Your task to perform on an android device: Open network settings Image 0: 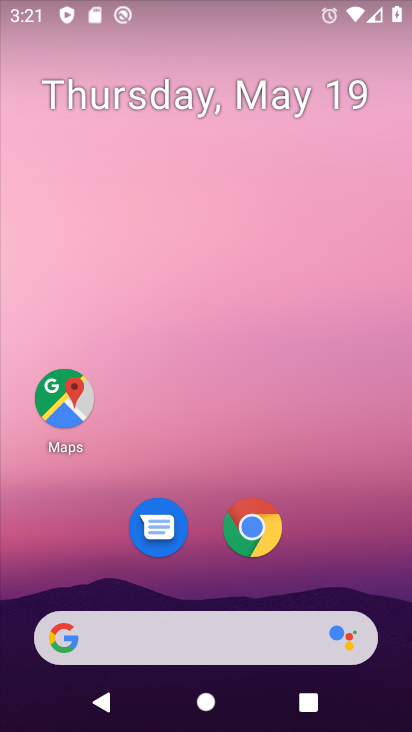
Step 0: drag from (331, 540) to (360, 177)
Your task to perform on an android device: Open network settings Image 1: 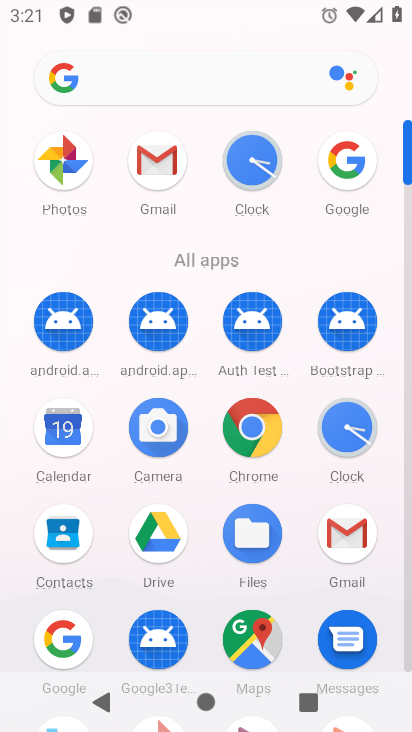
Step 1: drag from (296, 634) to (327, 296)
Your task to perform on an android device: Open network settings Image 2: 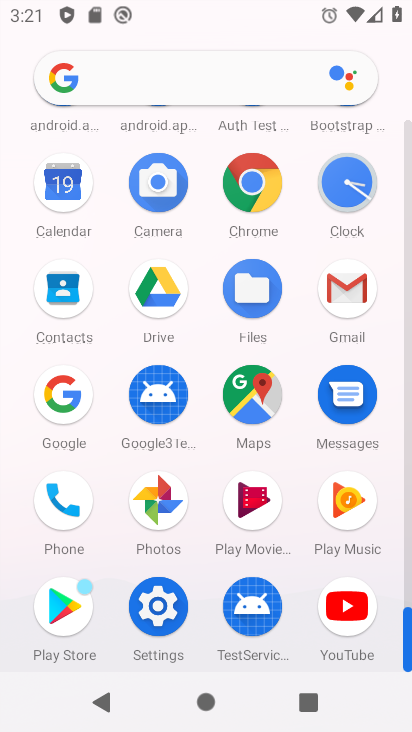
Step 2: click (159, 592)
Your task to perform on an android device: Open network settings Image 3: 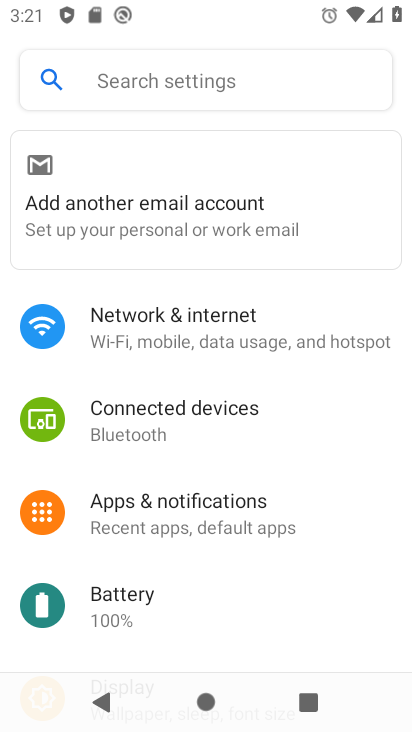
Step 3: click (238, 327)
Your task to perform on an android device: Open network settings Image 4: 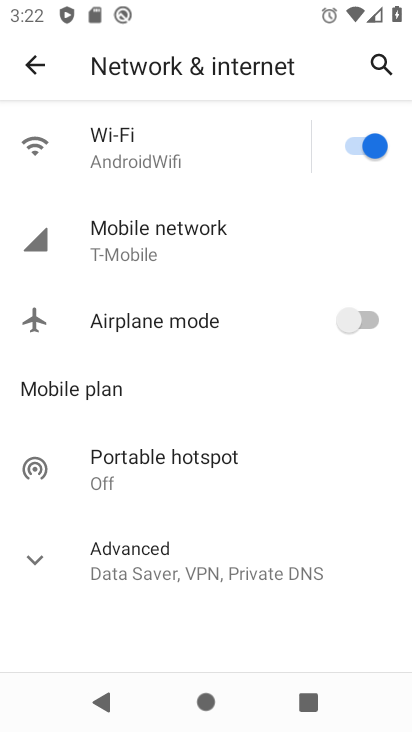
Step 4: task complete